Your task to perform on an android device: Go to notification settings Image 0: 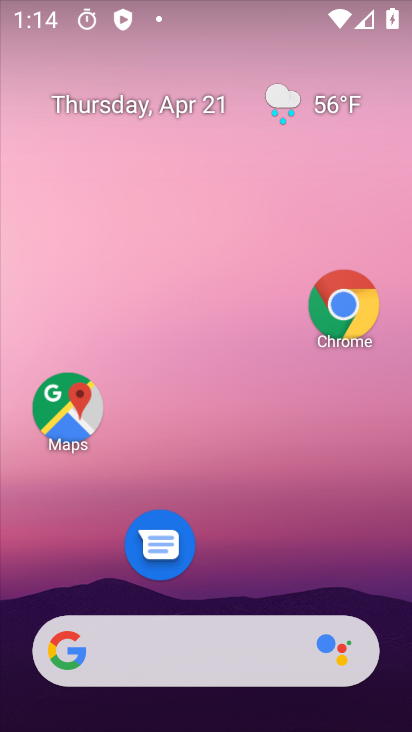
Step 0: drag from (217, 661) to (311, 142)
Your task to perform on an android device: Go to notification settings Image 1: 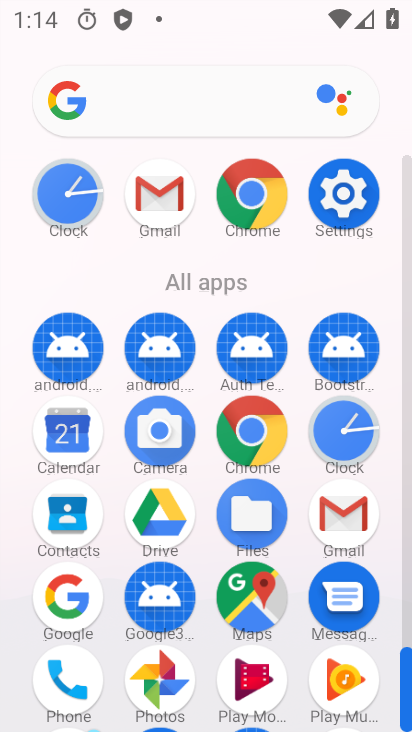
Step 1: click (351, 212)
Your task to perform on an android device: Go to notification settings Image 2: 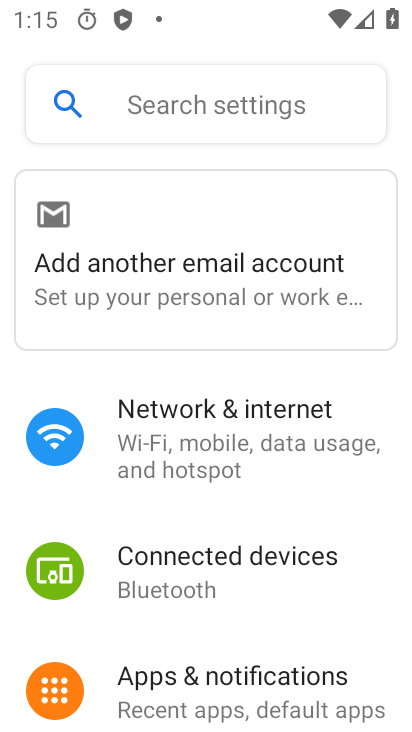
Step 2: click (259, 675)
Your task to perform on an android device: Go to notification settings Image 3: 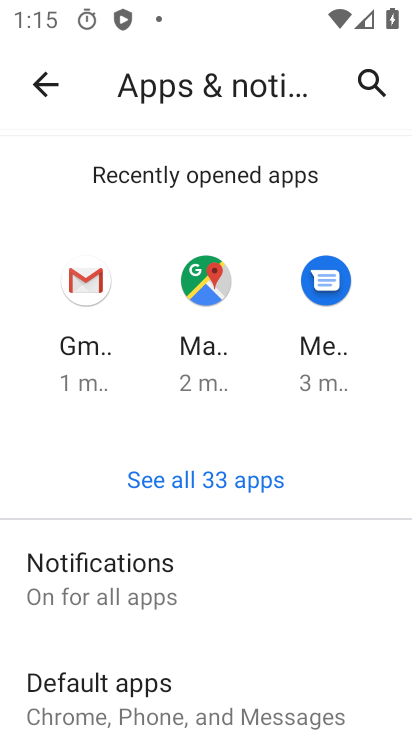
Step 3: click (130, 584)
Your task to perform on an android device: Go to notification settings Image 4: 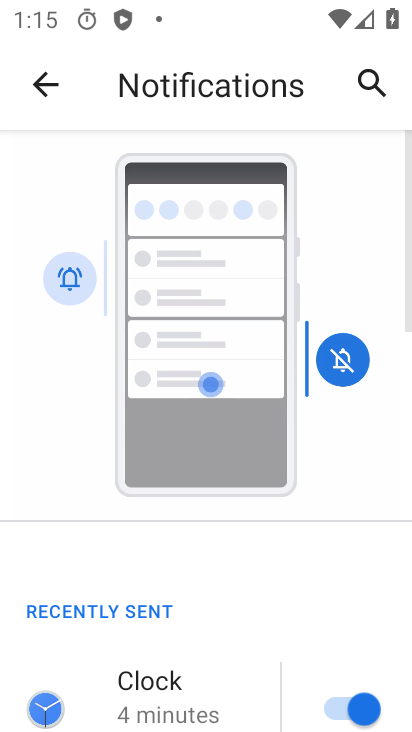
Step 4: task complete